Your task to perform on an android device: Is it going to rain today? Image 0: 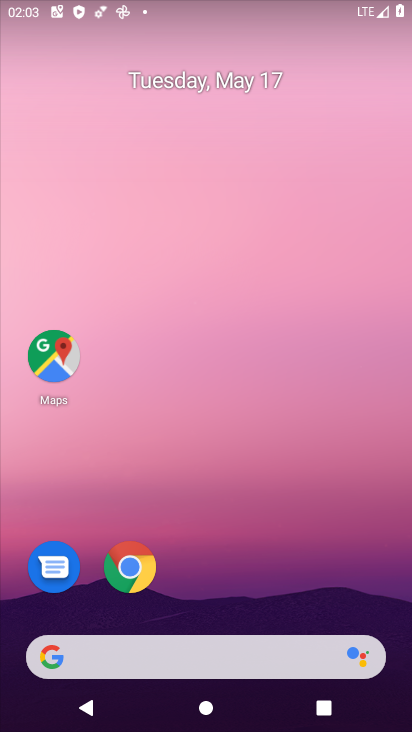
Step 0: drag from (2, 162) to (156, 176)
Your task to perform on an android device: Is it going to rain today? Image 1: 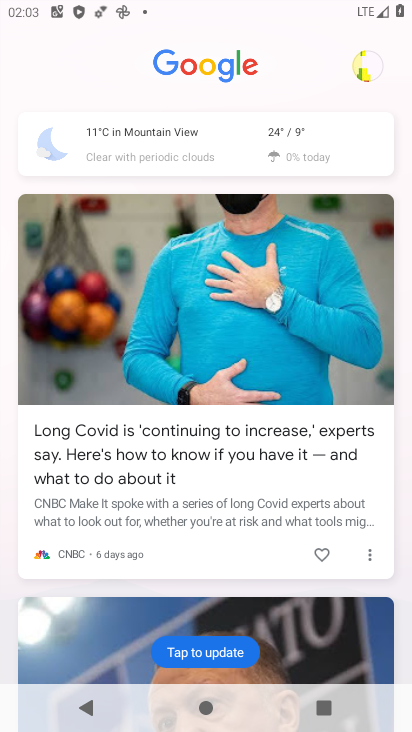
Step 1: click (292, 132)
Your task to perform on an android device: Is it going to rain today? Image 2: 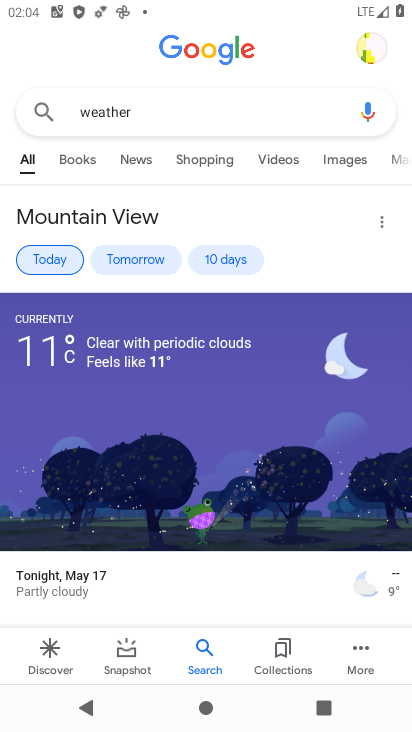
Step 2: task complete